Your task to perform on an android device: Open Youtube and go to the subscriptions tab Image 0: 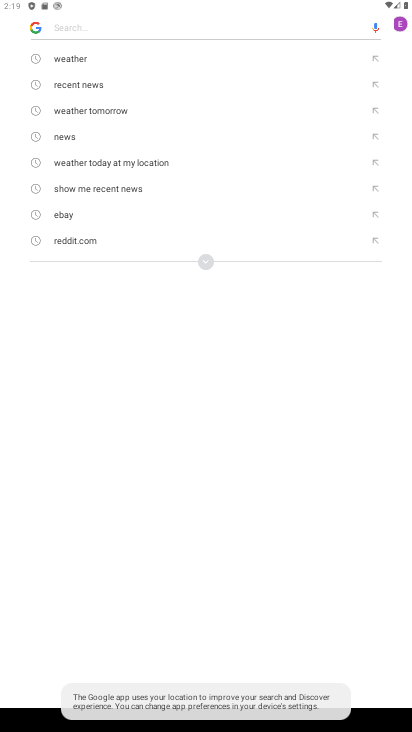
Step 0: press home button
Your task to perform on an android device: Open Youtube and go to the subscriptions tab Image 1: 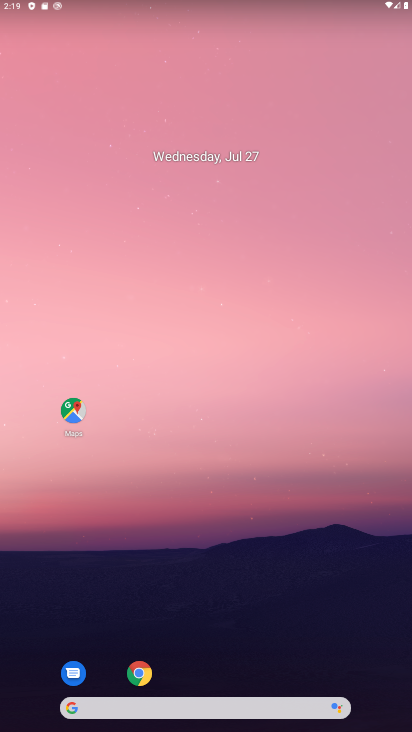
Step 1: drag from (90, 580) to (263, 146)
Your task to perform on an android device: Open Youtube and go to the subscriptions tab Image 2: 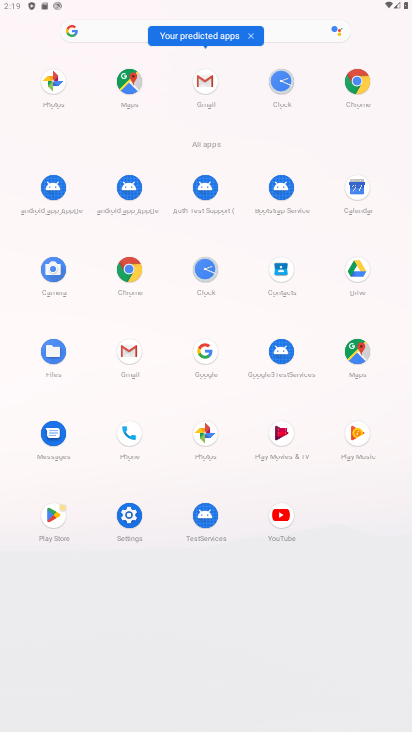
Step 2: click (282, 511)
Your task to perform on an android device: Open Youtube and go to the subscriptions tab Image 3: 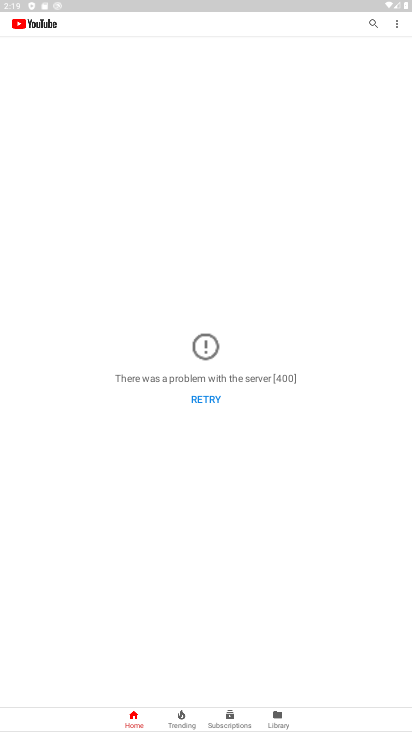
Step 3: click (231, 720)
Your task to perform on an android device: Open Youtube and go to the subscriptions tab Image 4: 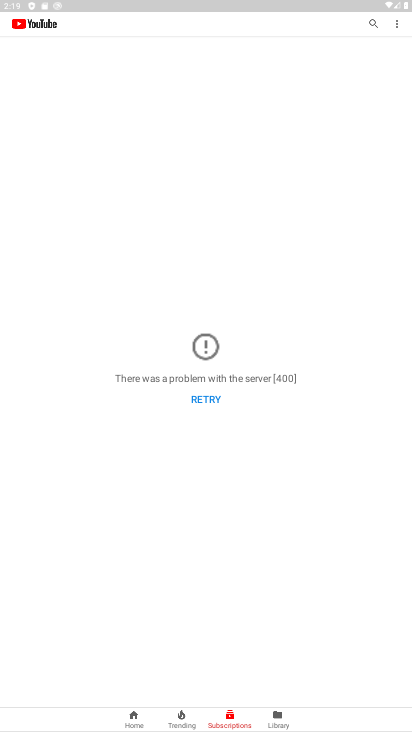
Step 4: task complete